Your task to perform on an android device: Open settings on Google Maps Image 0: 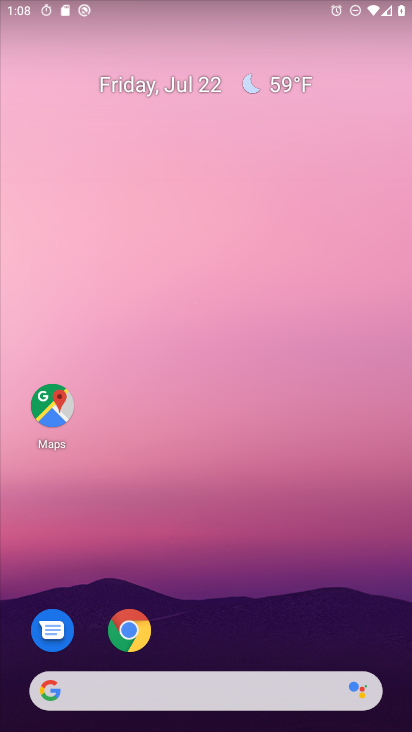
Step 0: press home button
Your task to perform on an android device: Open settings on Google Maps Image 1: 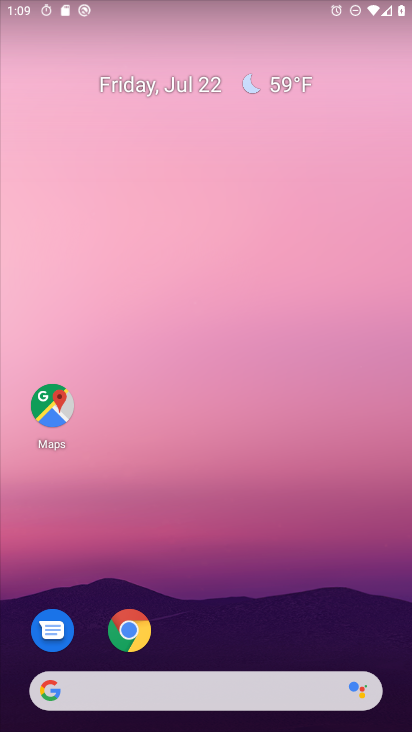
Step 1: drag from (200, 644) to (204, 67)
Your task to perform on an android device: Open settings on Google Maps Image 2: 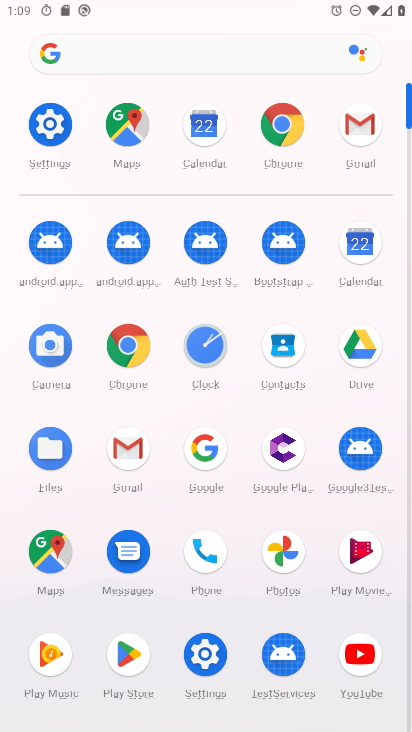
Step 2: click (137, 125)
Your task to perform on an android device: Open settings on Google Maps Image 3: 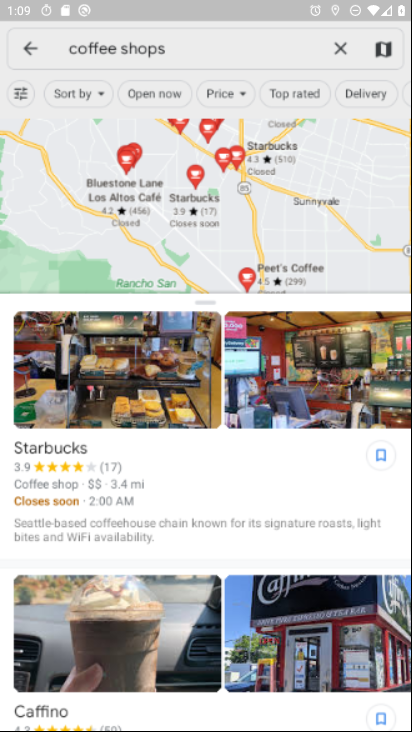
Step 3: click (336, 43)
Your task to perform on an android device: Open settings on Google Maps Image 4: 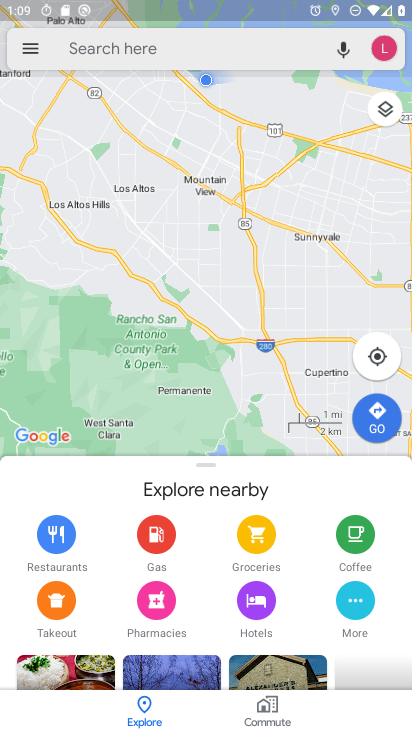
Step 4: click (28, 51)
Your task to perform on an android device: Open settings on Google Maps Image 5: 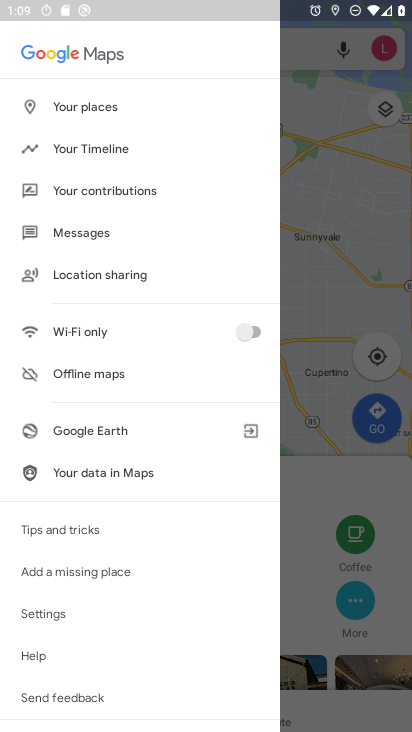
Step 5: click (43, 616)
Your task to perform on an android device: Open settings on Google Maps Image 6: 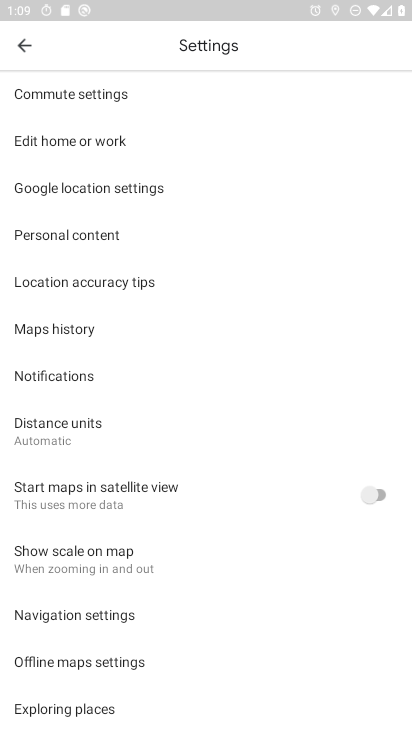
Step 6: task complete